Your task to perform on an android device: open chrome privacy settings Image 0: 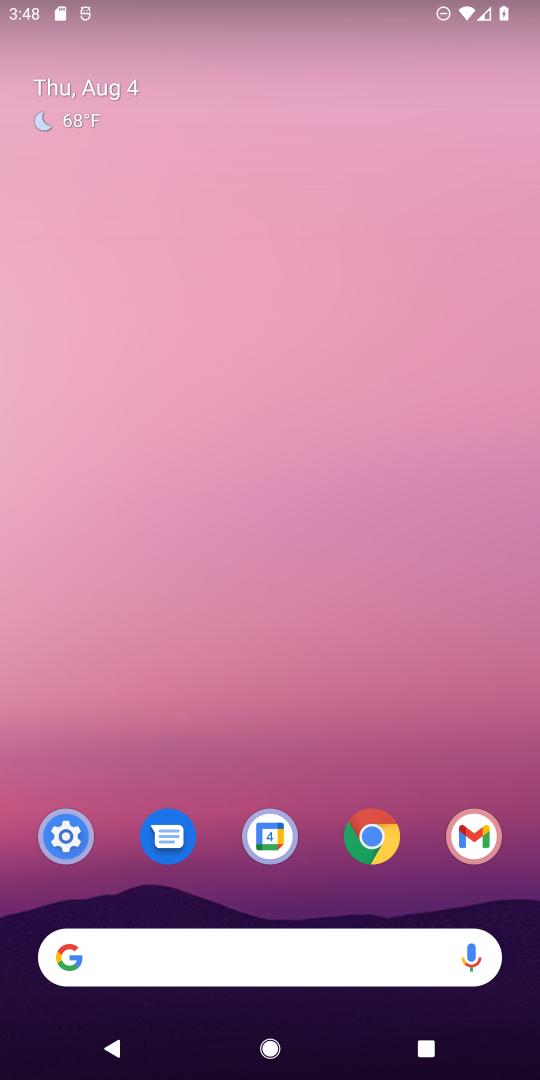
Step 0: click (351, 845)
Your task to perform on an android device: open chrome privacy settings Image 1: 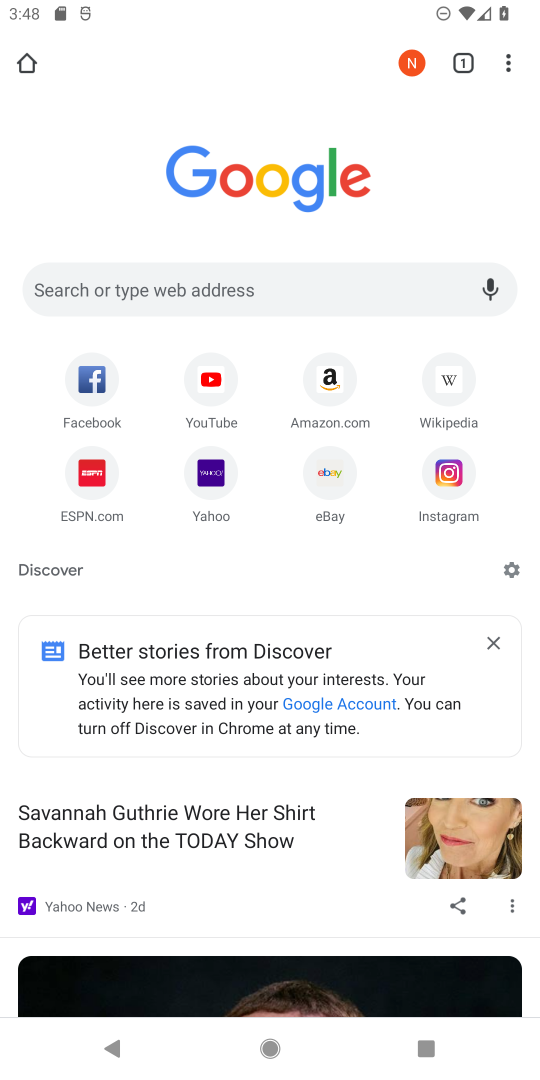
Step 1: click (502, 54)
Your task to perform on an android device: open chrome privacy settings Image 2: 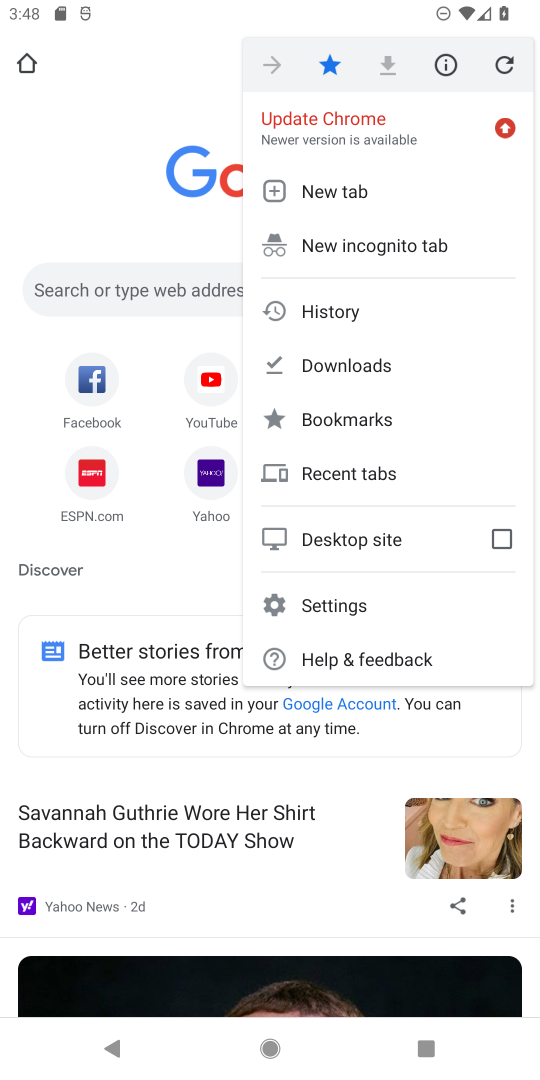
Step 2: click (379, 602)
Your task to perform on an android device: open chrome privacy settings Image 3: 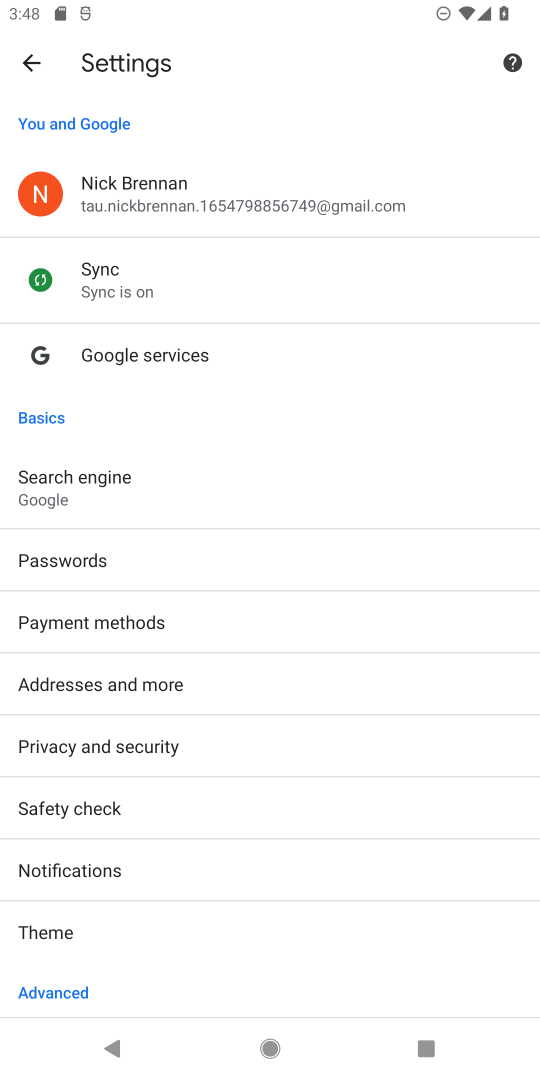
Step 3: drag from (271, 928) to (206, 233)
Your task to perform on an android device: open chrome privacy settings Image 4: 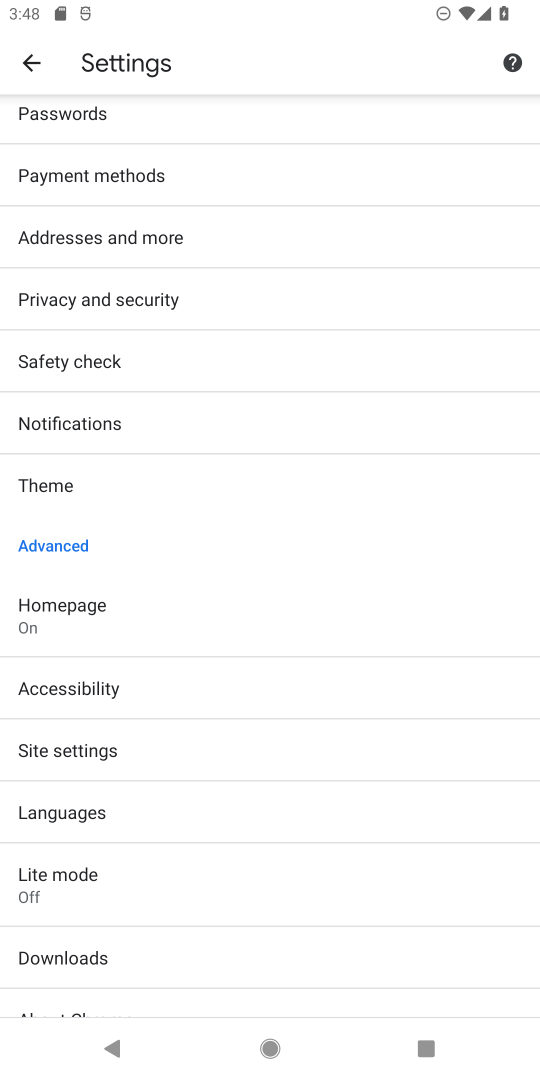
Step 4: click (256, 288)
Your task to perform on an android device: open chrome privacy settings Image 5: 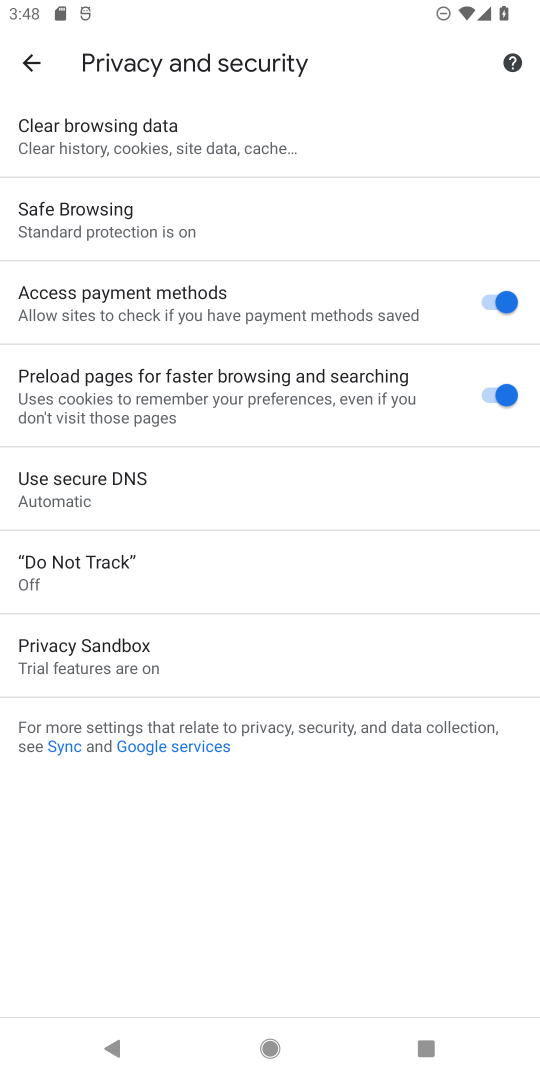
Step 5: task complete